Your task to perform on an android device: Find coffee shops on Maps Image 0: 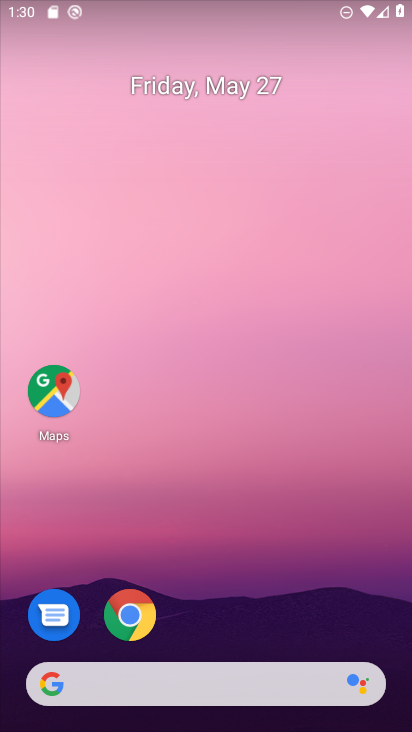
Step 0: drag from (282, 598) to (277, 228)
Your task to perform on an android device: Find coffee shops on Maps Image 1: 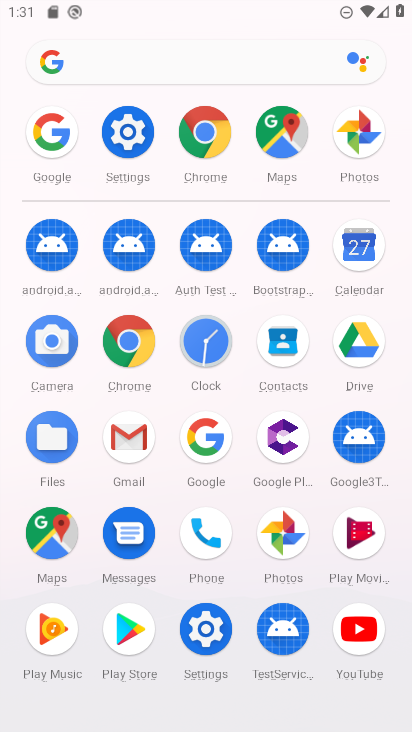
Step 1: click (58, 536)
Your task to perform on an android device: Find coffee shops on Maps Image 2: 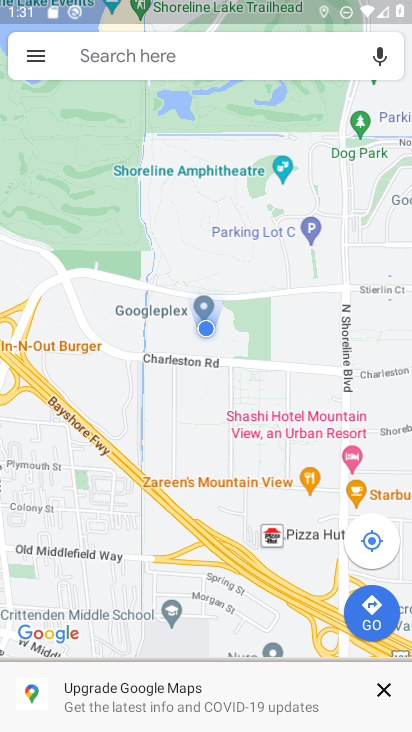
Step 2: click (139, 63)
Your task to perform on an android device: Find coffee shops on Maps Image 3: 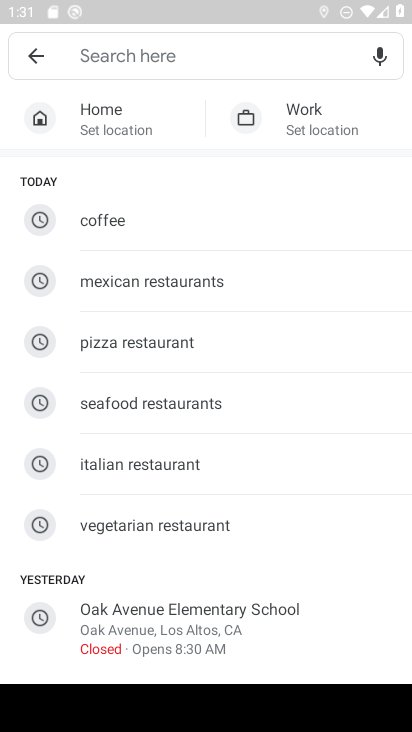
Step 3: type "coffee shops"
Your task to perform on an android device: Find coffee shops on Maps Image 4: 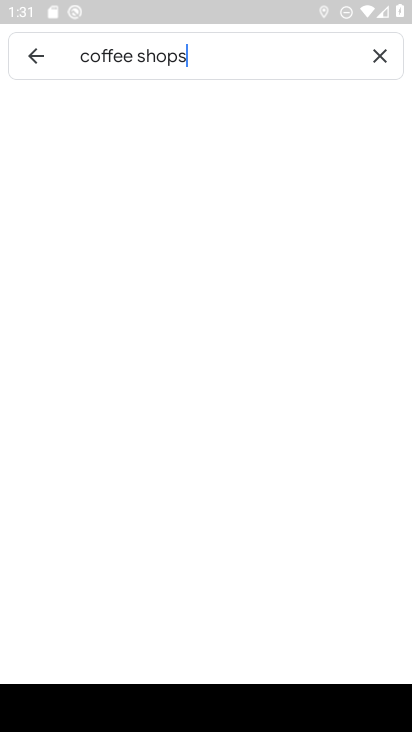
Step 4: type ""
Your task to perform on an android device: Find coffee shops on Maps Image 5: 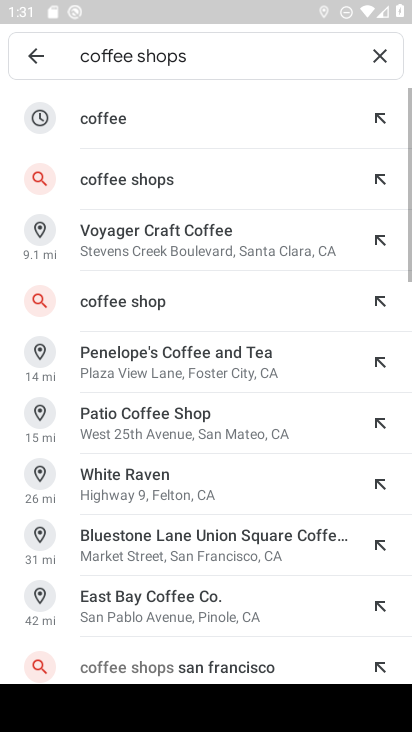
Step 5: click (207, 188)
Your task to perform on an android device: Find coffee shops on Maps Image 6: 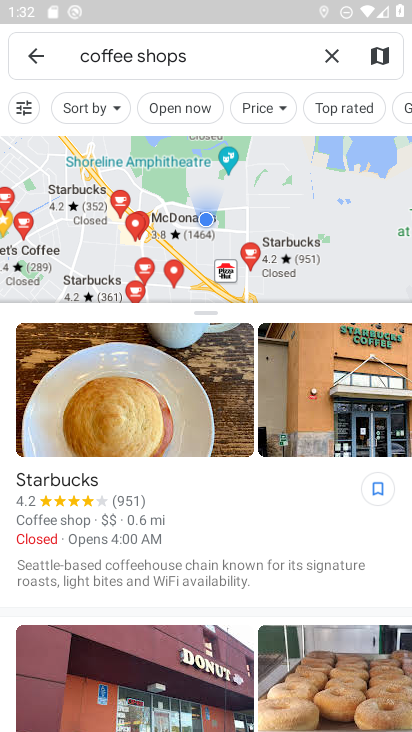
Step 6: task complete